Your task to perform on an android device: Is it going to rain tomorrow? Image 0: 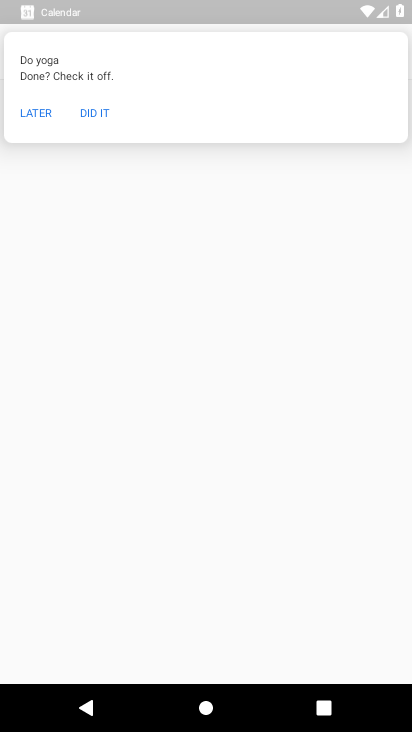
Step 0: press home button
Your task to perform on an android device: Is it going to rain tomorrow? Image 1: 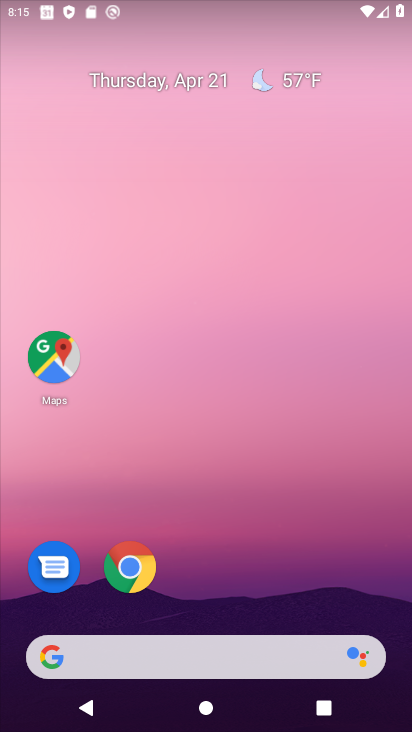
Step 1: click (228, 656)
Your task to perform on an android device: Is it going to rain tomorrow? Image 2: 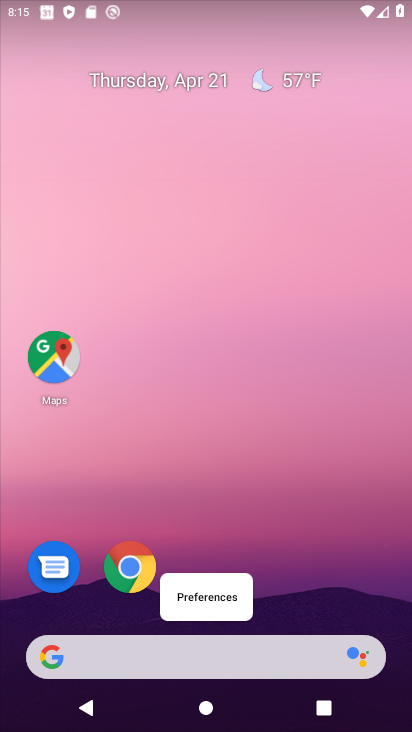
Step 2: click (54, 646)
Your task to perform on an android device: Is it going to rain tomorrow? Image 3: 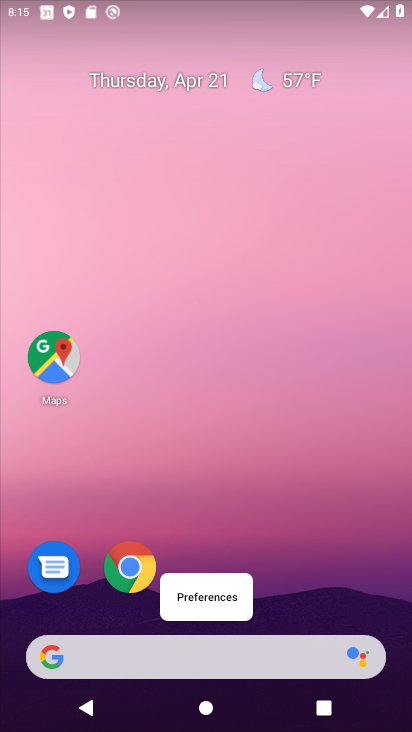
Step 3: click (54, 646)
Your task to perform on an android device: Is it going to rain tomorrow? Image 4: 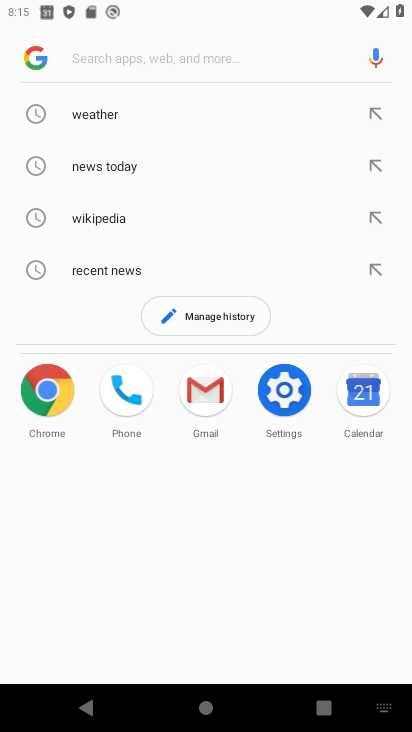
Step 4: click (110, 109)
Your task to perform on an android device: Is it going to rain tomorrow? Image 5: 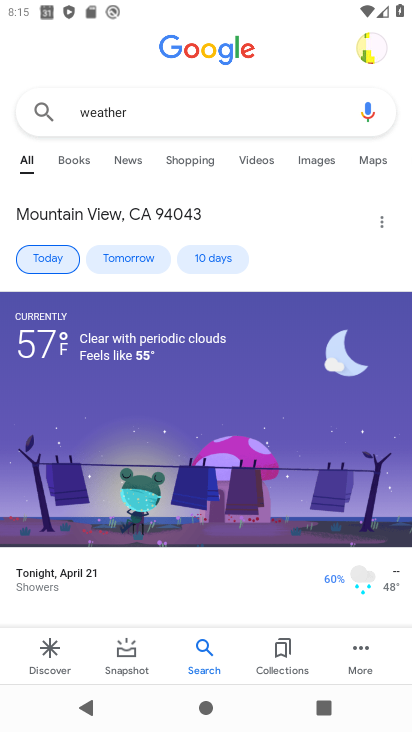
Step 5: click (113, 247)
Your task to perform on an android device: Is it going to rain tomorrow? Image 6: 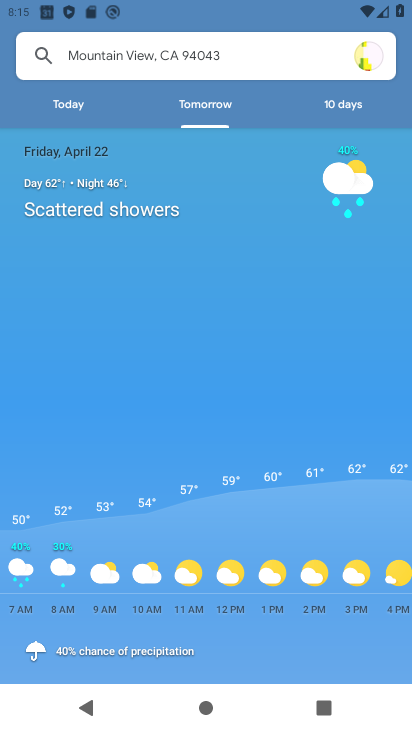
Step 6: task complete